Your task to perform on an android device: Open settings Image 0: 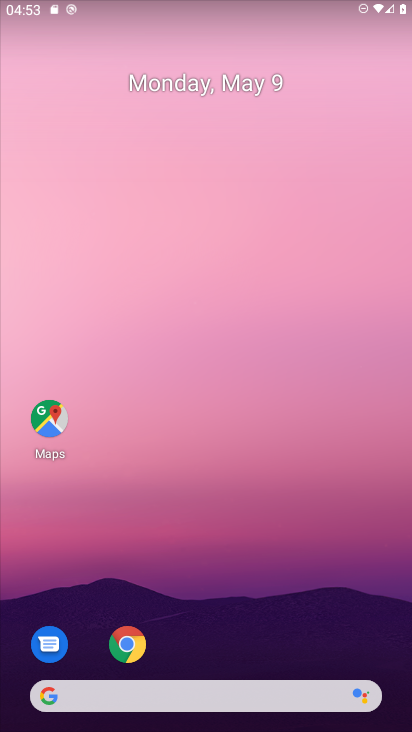
Step 0: drag from (258, 608) to (183, 21)
Your task to perform on an android device: Open settings Image 1: 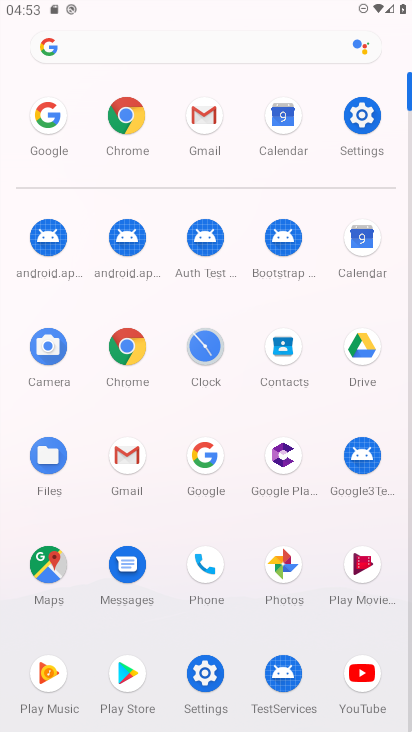
Step 1: click (359, 114)
Your task to perform on an android device: Open settings Image 2: 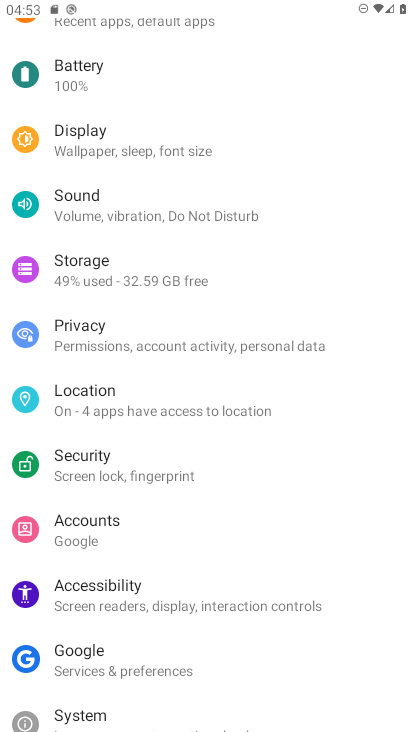
Step 2: press home button
Your task to perform on an android device: Open settings Image 3: 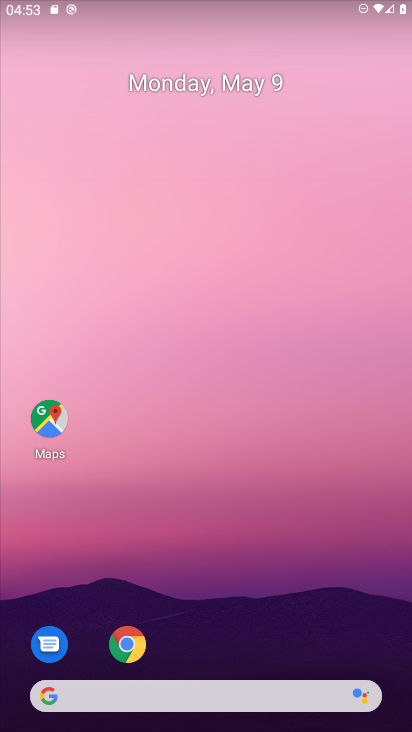
Step 3: drag from (182, 610) to (145, 6)
Your task to perform on an android device: Open settings Image 4: 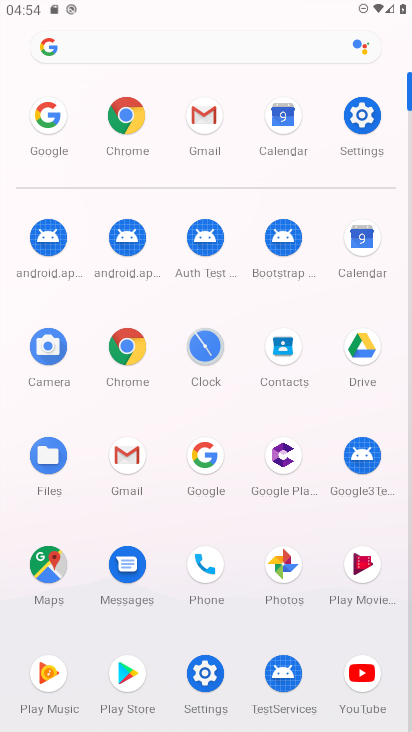
Step 4: click (364, 114)
Your task to perform on an android device: Open settings Image 5: 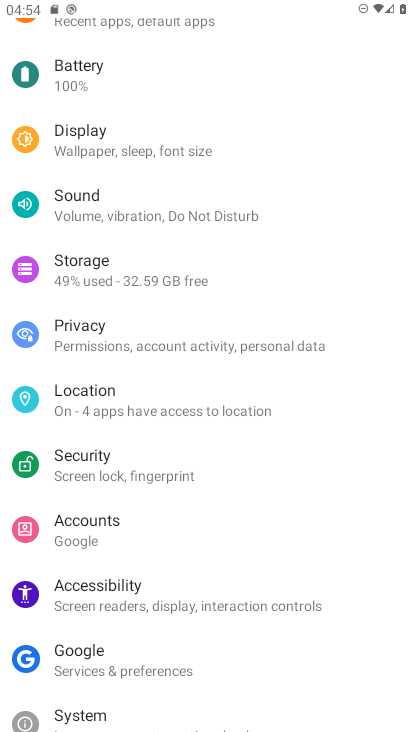
Step 5: task complete